Your task to perform on an android device: Go to Maps Image 0: 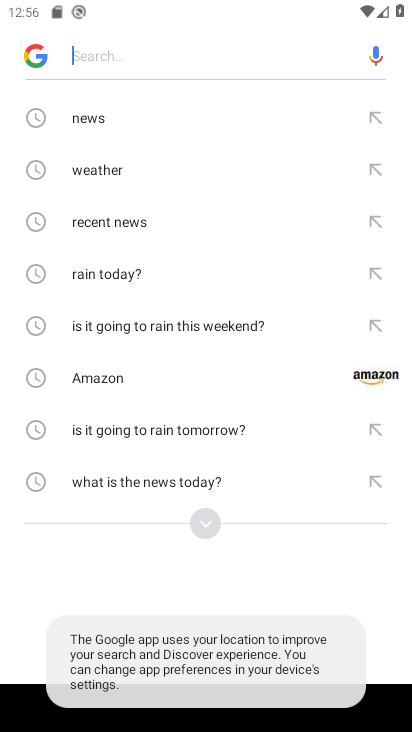
Step 0: press home button
Your task to perform on an android device: Go to Maps Image 1: 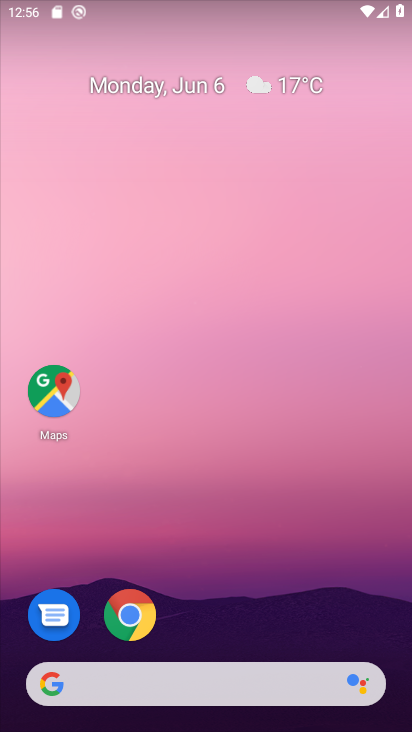
Step 1: click (59, 400)
Your task to perform on an android device: Go to Maps Image 2: 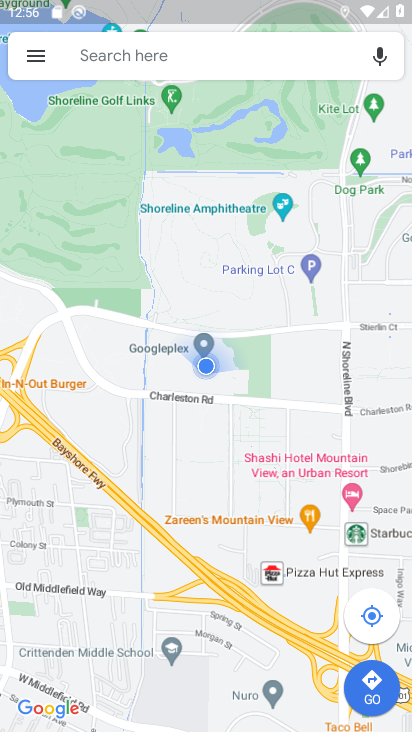
Step 2: task complete